Your task to perform on an android device: delete a single message in the gmail app Image 0: 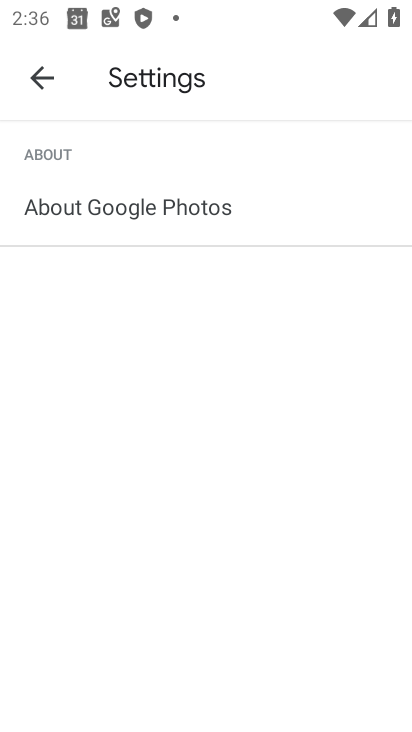
Step 0: press back button
Your task to perform on an android device: delete a single message in the gmail app Image 1: 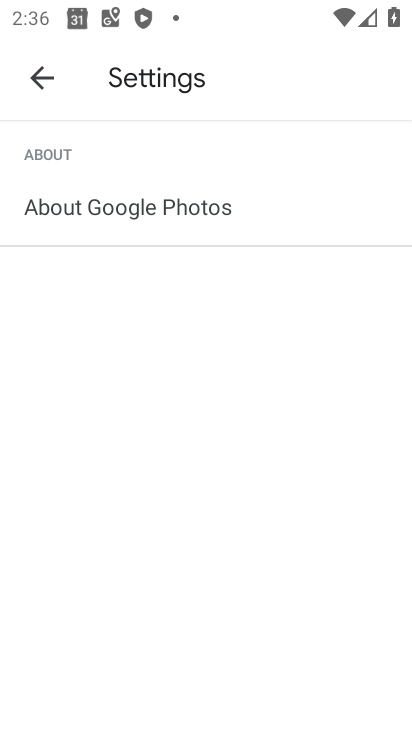
Step 1: press home button
Your task to perform on an android device: delete a single message in the gmail app Image 2: 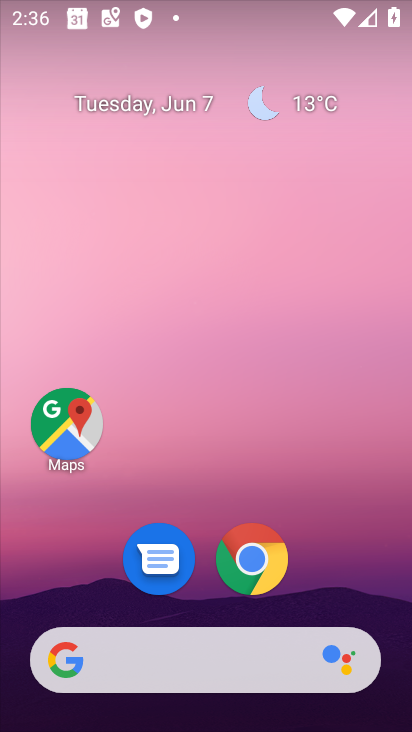
Step 2: drag from (331, 568) to (260, 105)
Your task to perform on an android device: delete a single message in the gmail app Image 3: 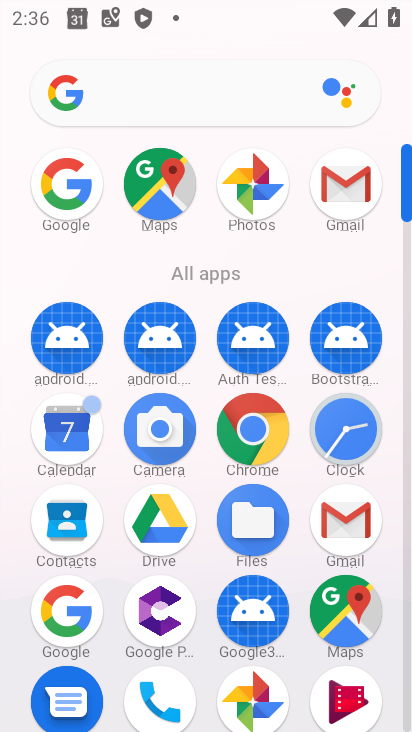
Step 3: click (344, 183)
Your task to perform on an android device: delete a single message in the gmail app Image 4: 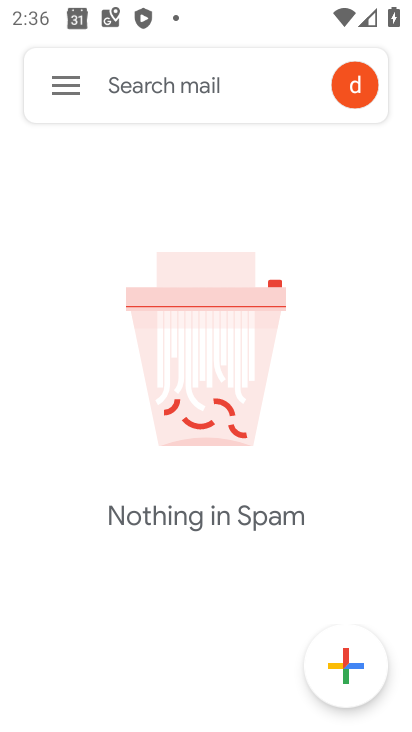
Step 4: click (56, 84)
Your task to perform on an android device: delete a single message in the gmail app Image 5: 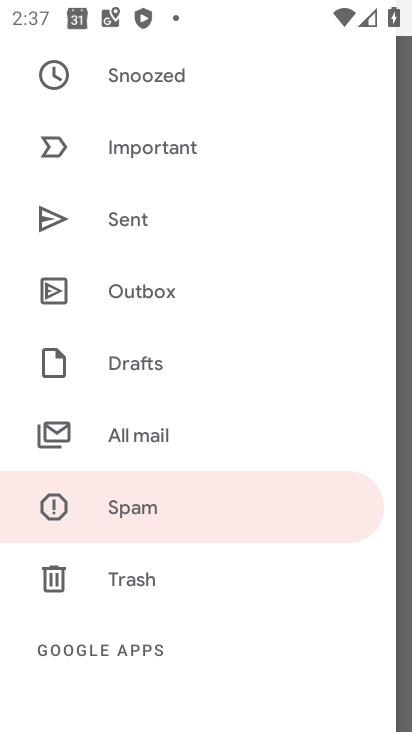
Step 5: drag from (210, 249) to (190, 393)
Your task to perform on an android device: delete a single message in the gmail app Image 6: 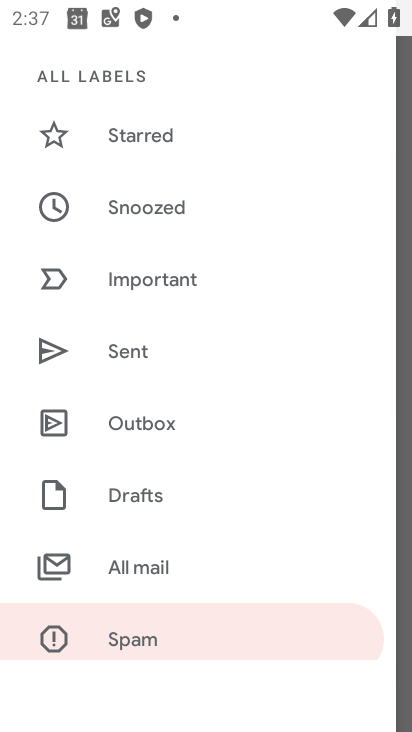
Step 6: drag from (198, 195) to (202, 399)
Your task to perform on an android device: delete a single message in the gmail app Image 7: 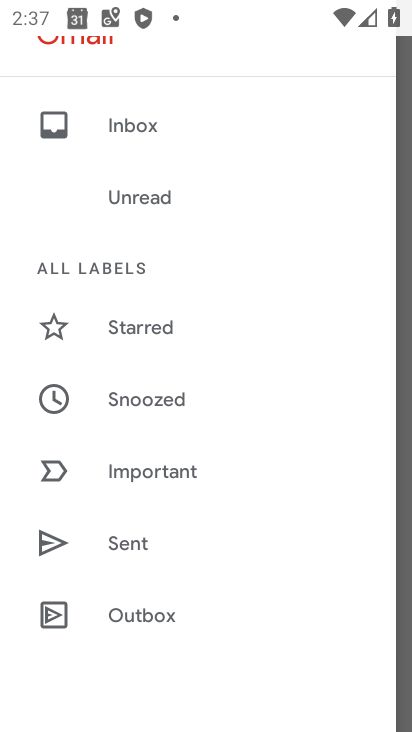
Step 7: click (166, 139)
Your task to perform on an android device: delete a single message in the gmail app Image 8: 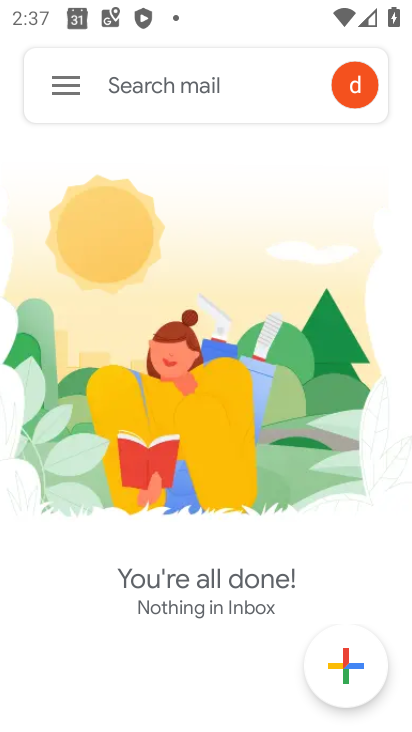
Step 8: click (56, 92)
Your task to perform on an android device: delete a single message in the gmail app Image 9: 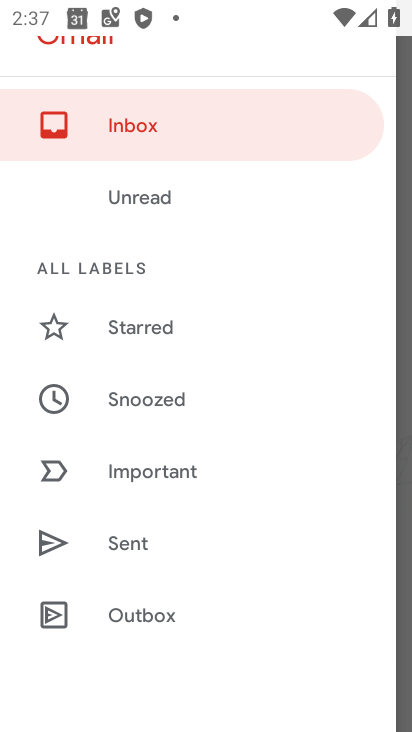
Step 9: drag from (162, 359) to (225, 255)
Your task to perform on an android device: delete a single message in the gmail app Image 10: 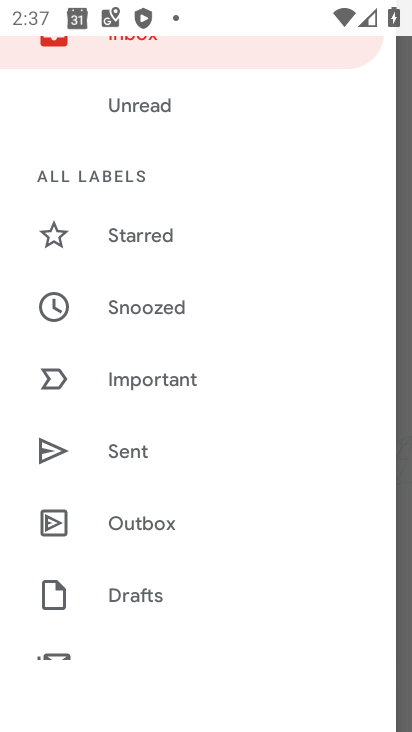
Step 10: click (170, 374)
Your task to perform on an android device: delete a single message in the gmail app Image 11: 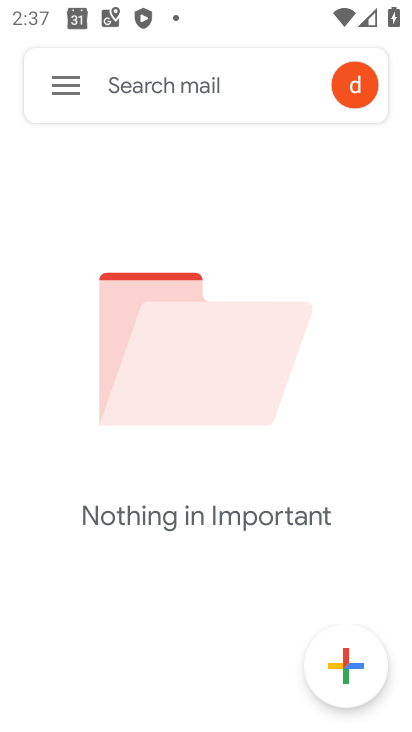
Step 11: click (69, 89)
Your task to perform on an android device: delete a single message in the gmail app Image 12: 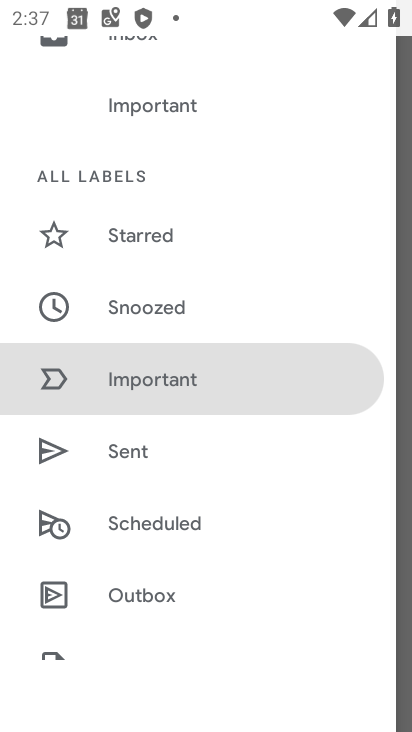
Step 12: task complete